Your task to perform on an android device: turn on javascript in the chrome app Image 0: 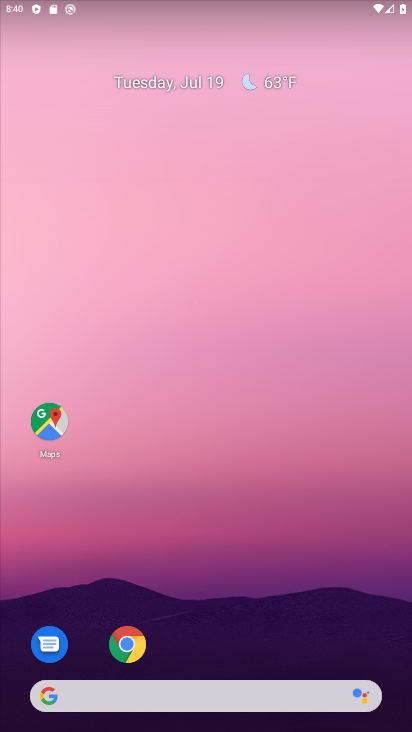
Step 0: drag from (229, 529) to (177, 33)
Your task to perform on an android device: turn on javascript in the chrome app Image 1: 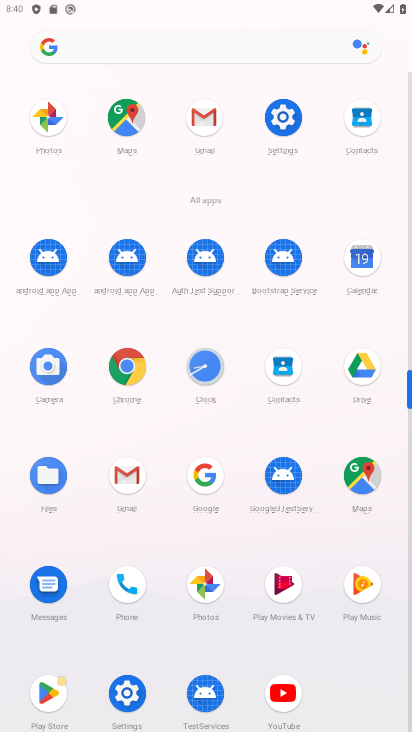
Step 1: click (128, 366)
Your task to perform on an android device: turn on javascript in the chrome app Image 2: 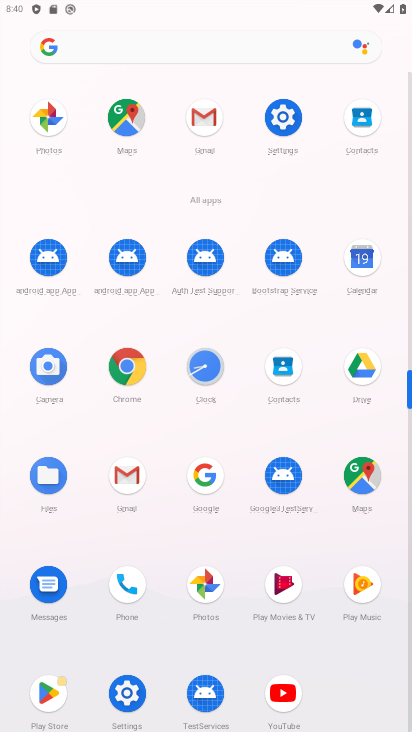
Step 2: click (128, 366)
Your task to perform on an android device: turn on javascript in the chrome app Image 3: 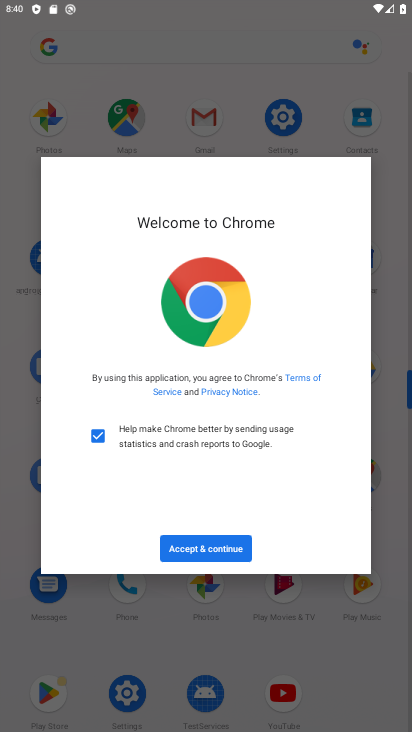
Step 3: click (216, 540)
Your task to perform on an android device: turn on javascript in the chrome app Image 4: 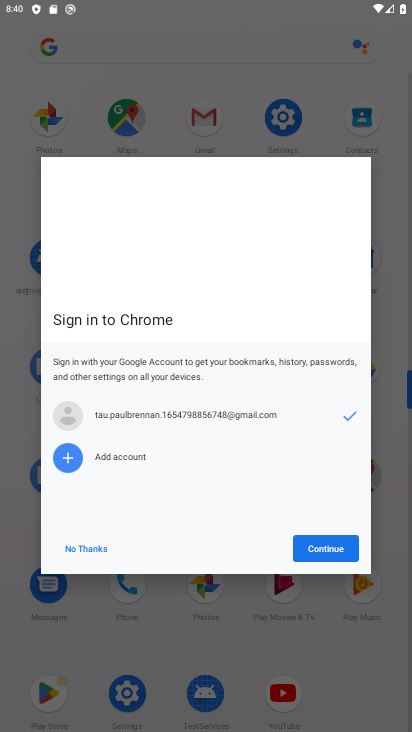
Step 4: click (320, 554)
Your task to perform on an android device: turn on javascript in the chrome app Image 5: 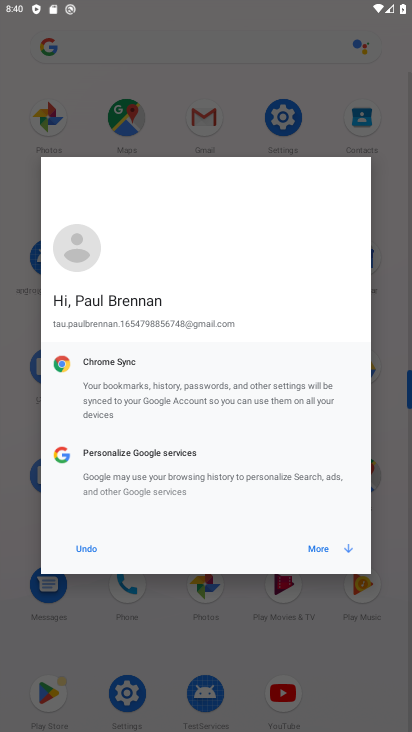
Step 5: click (91, 544)
Your task to perform on an android device: turn on javascript in the chrome app Image 6: 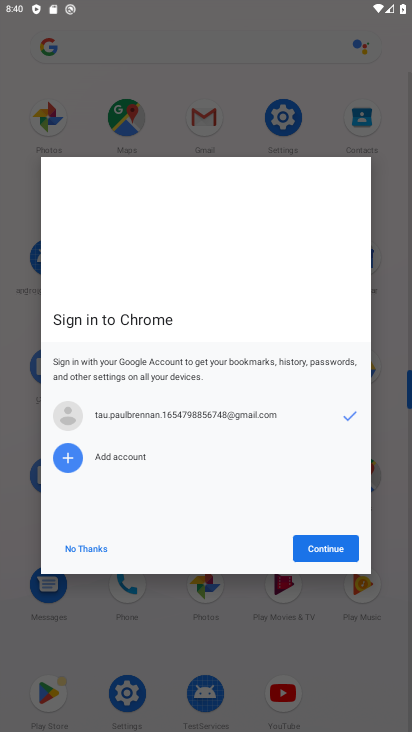
Step 6: click (91, 544)
Your task to perform on an android device: turn on javascript in the chrome app Image 7: 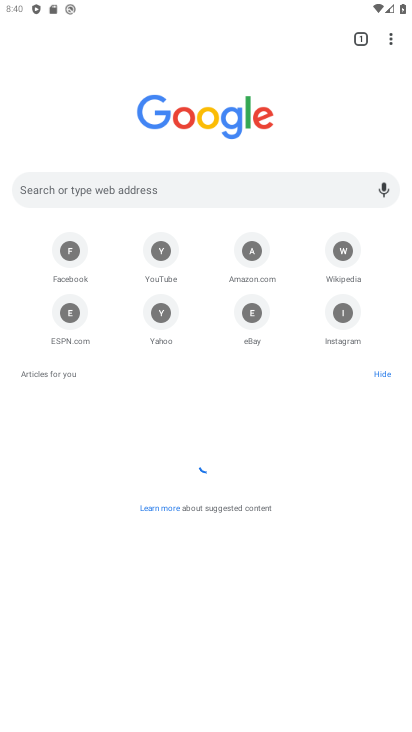
Step 7: click (388, 38)
Your task to perform on an android device: turn on javascript in the chrome app Image 8: 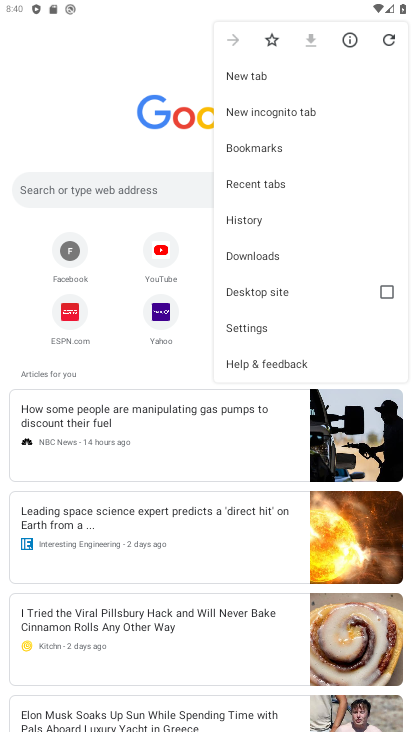
Step 8: click (253, 324)
Your task to perform on an android device: turn on javascript in the chrome app Image 9: 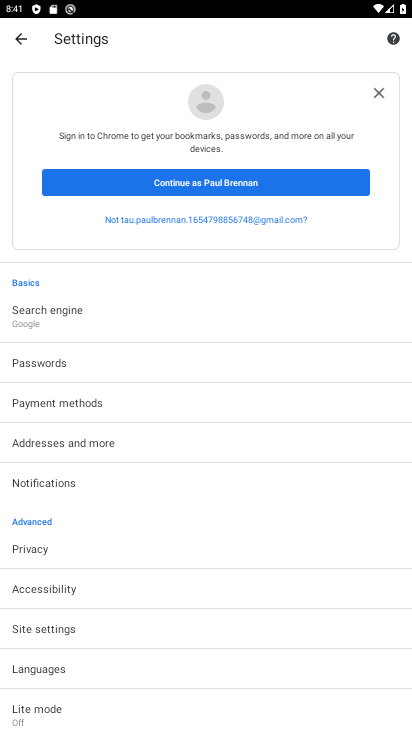
Step 9: click (39, 625)
Your task to perform on an android device: turn on javascript in the chrome app Image 10: 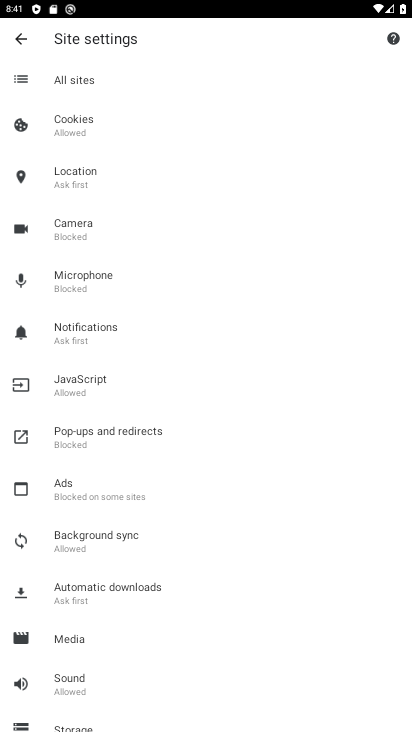
Step 10: click (76, 380)
Your task to perform on an android device: turn on javascript in the chrome app Image 11: 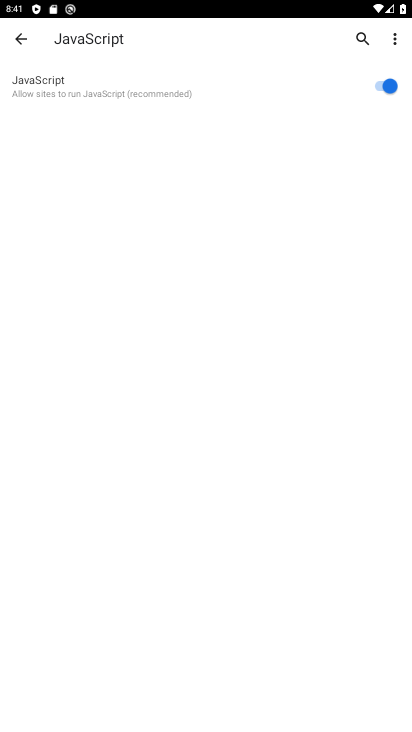
Step 11: task complete